Your task to perform on an android device: What's the weather today? Image 0: 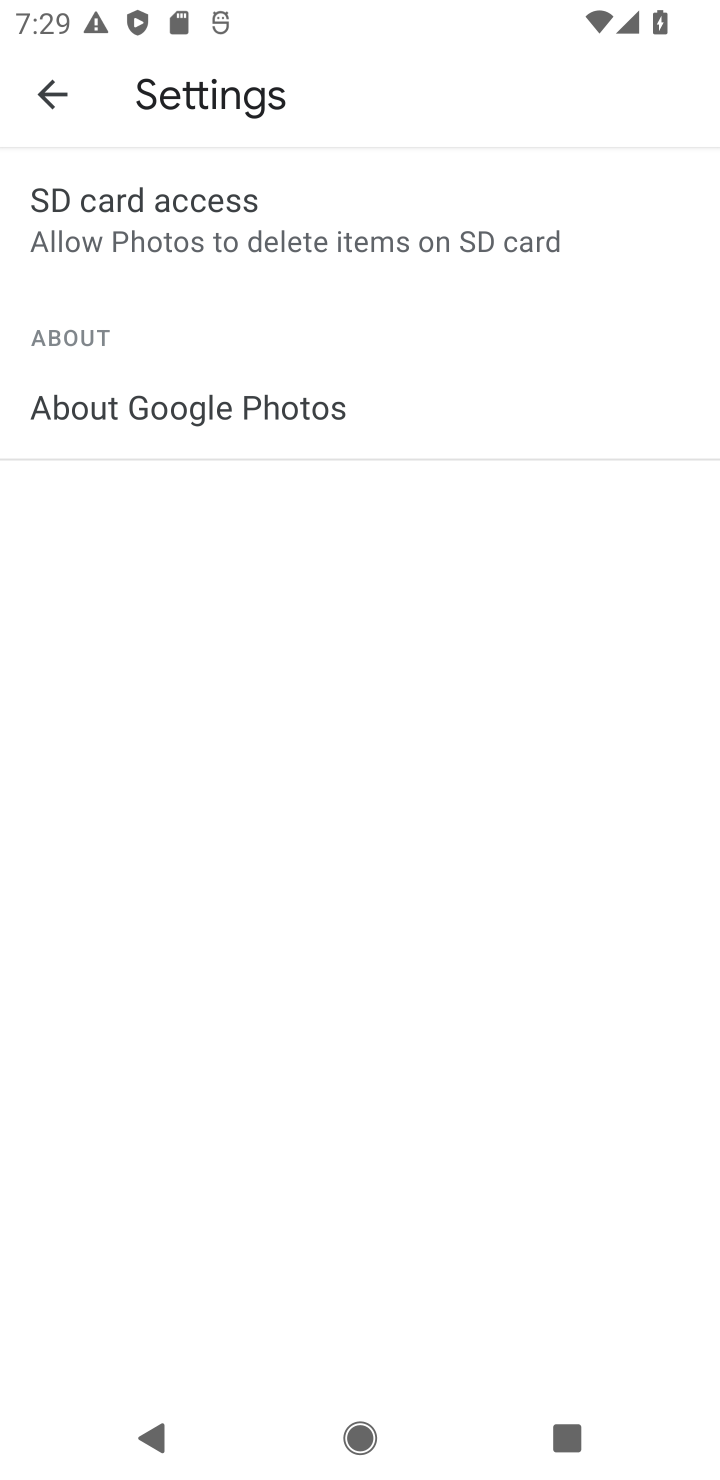
Step 0: press home button
Your task to perform on an android device: What's the weather today? Image 1: 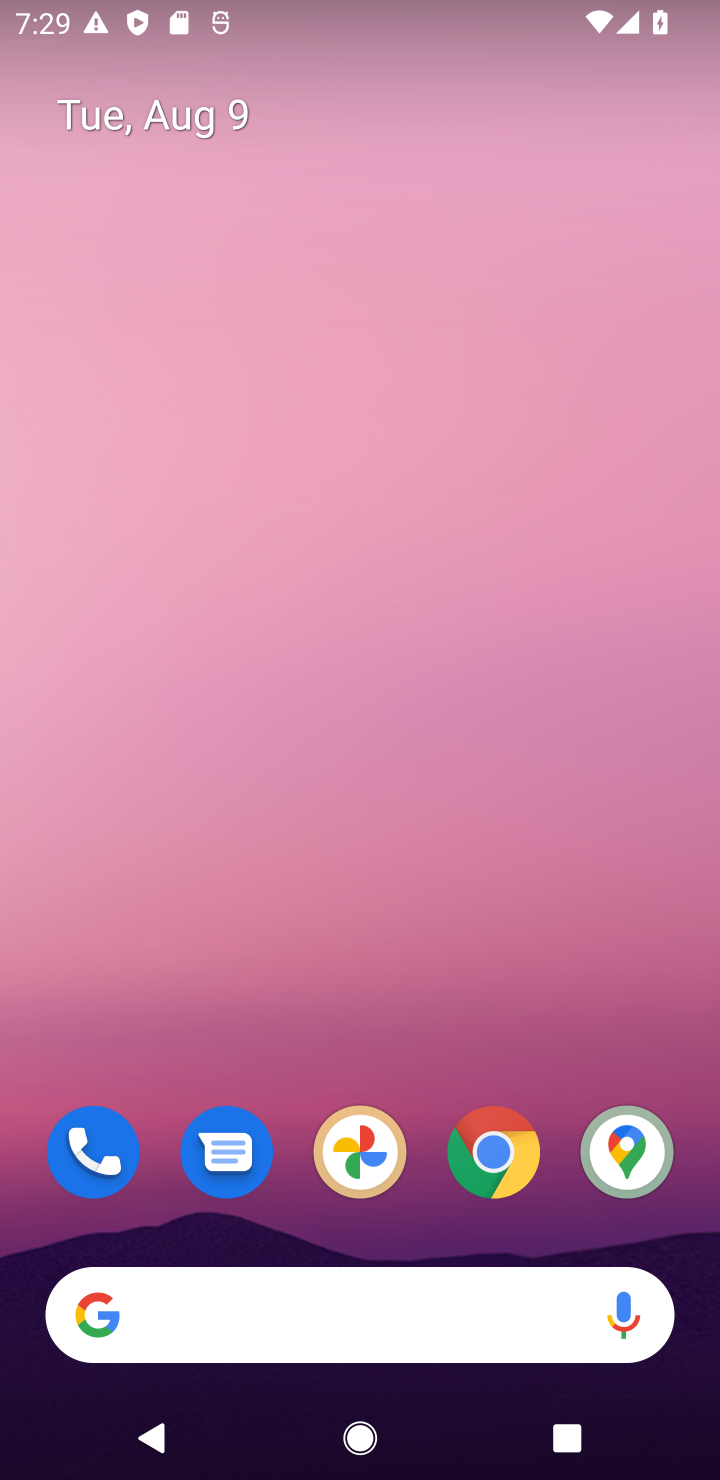
Step 1: click (282, 1336)
Your task to perform on an android device: What's the weather today? Image 2: 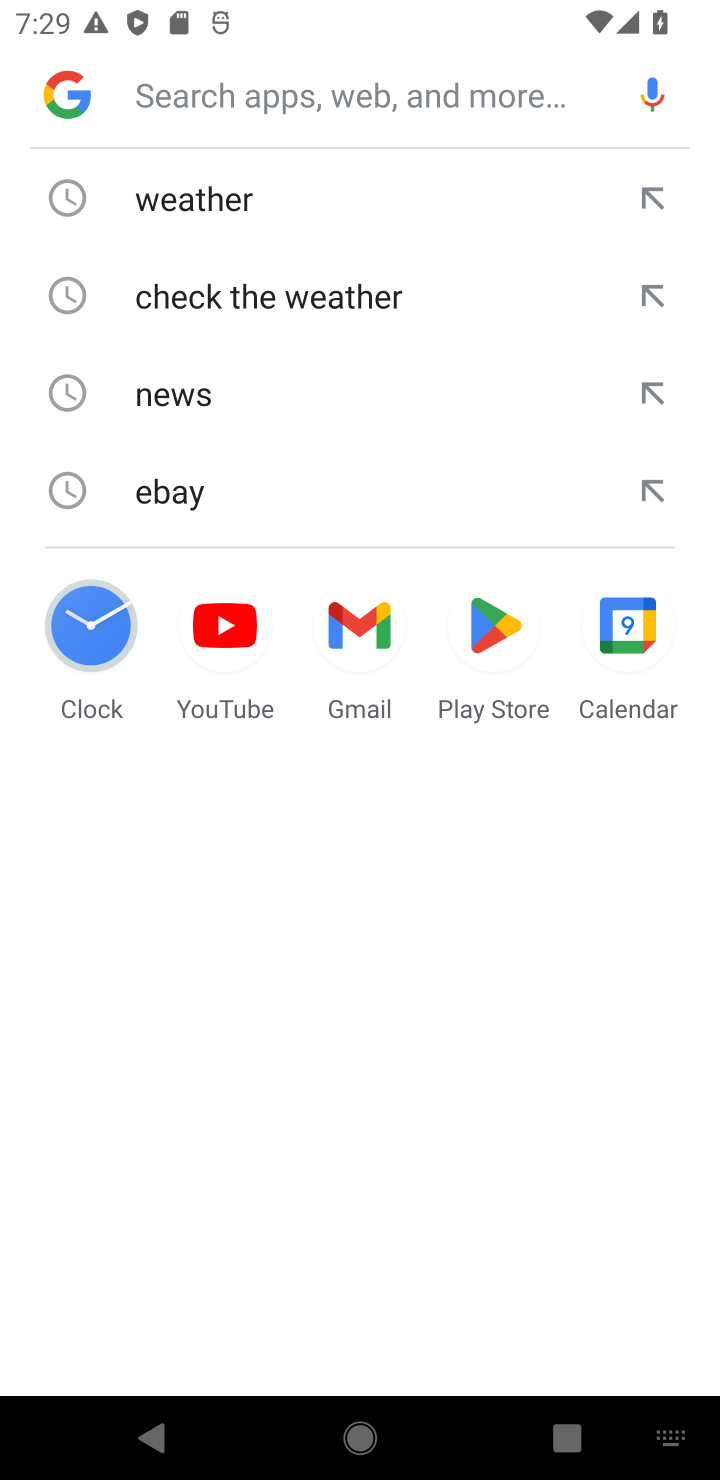
Step 2: click (330, 213)
Your task to perform on an android device: What's the weather today? Image 3: 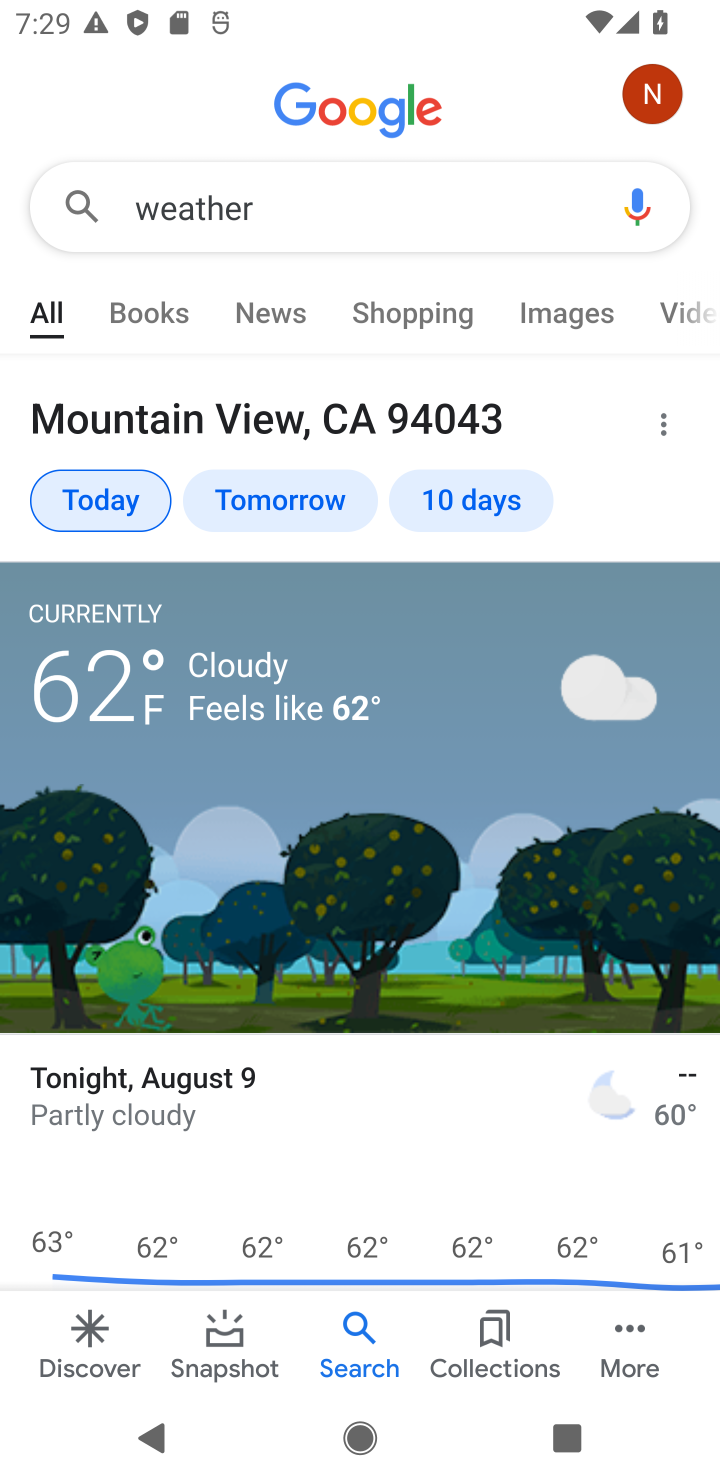
Step 3: task complete